Your task to perform on an android device: Add razer huntsman to the cart on ebay.com, then select checkout. Image 0: 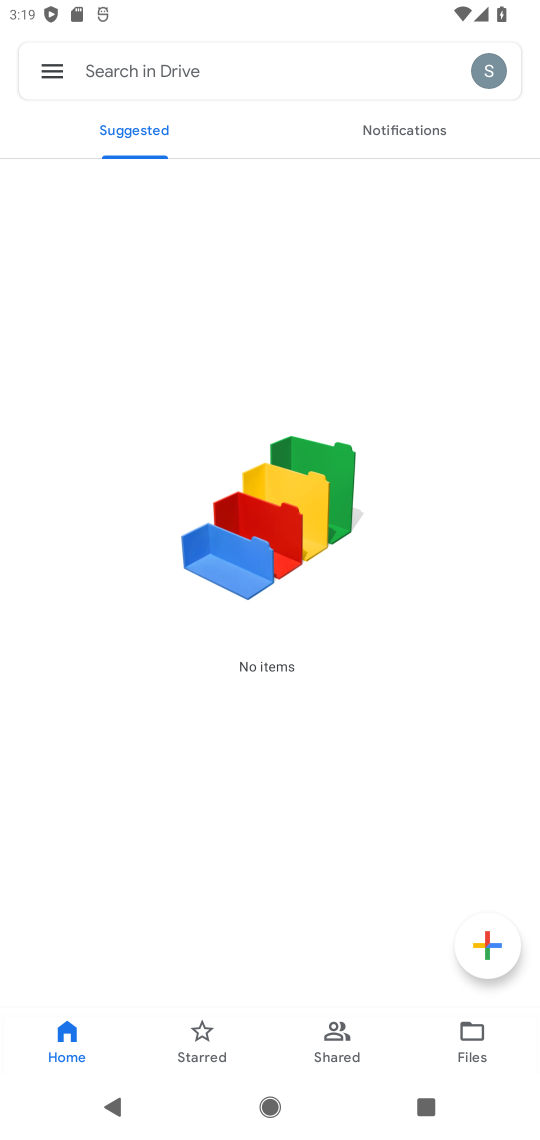
Step 0: press home button
Your task to perform on an android device: Add razer huntsman to the cart on ebay.com, then select checkout. Image 1: 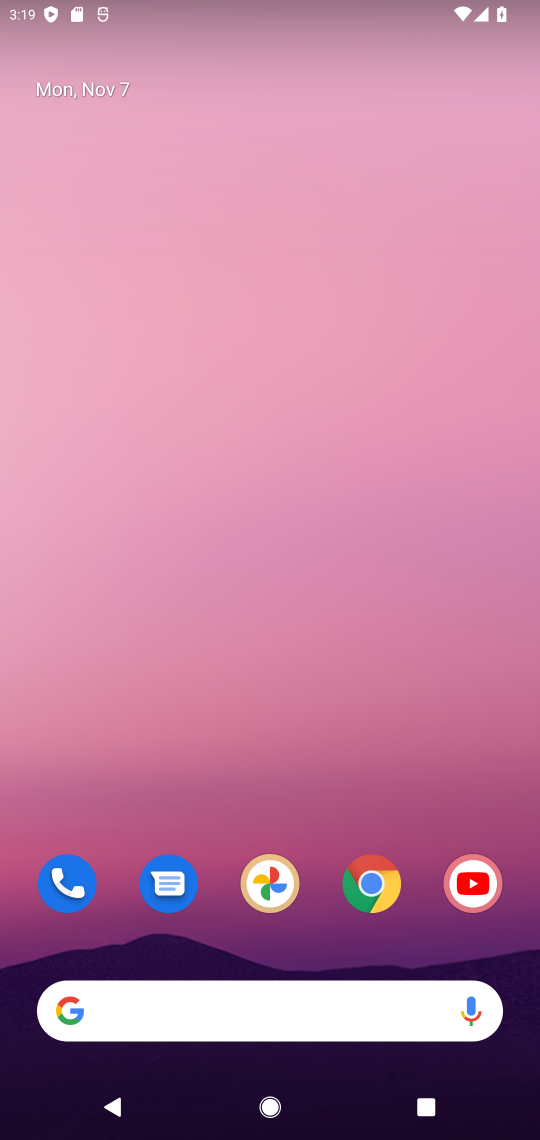
Step 1: click (369, 890)
Your task to perform on an android device: Add razer huntsman to the cart on ebay.com, then select checkout. Image 2: 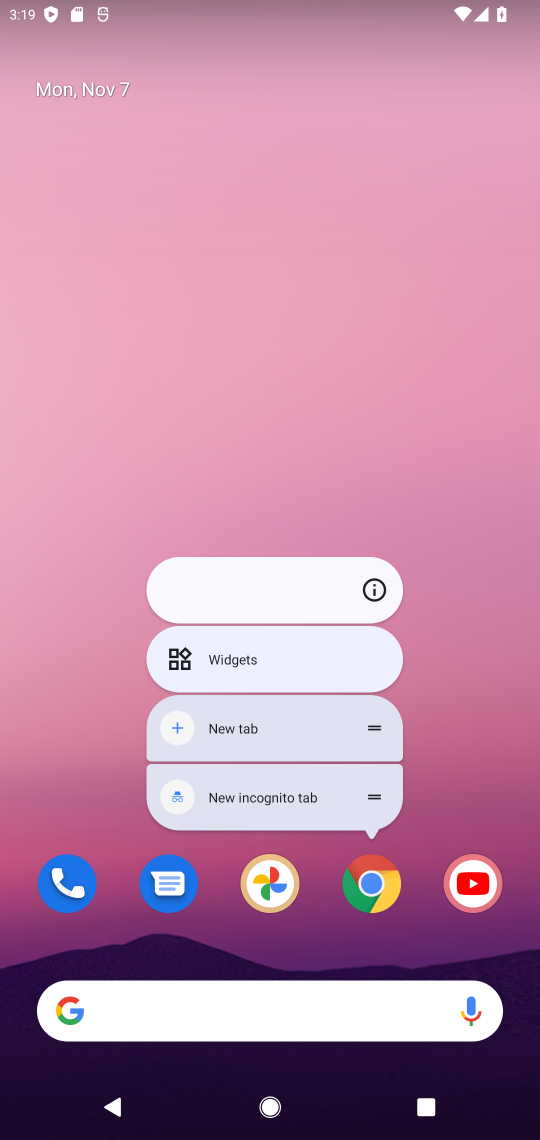
Step 2: click (357, 889)
Your task to perform on an android device: Add razer huntsman to the cart on ebay.com, then select checkout. Image 3: 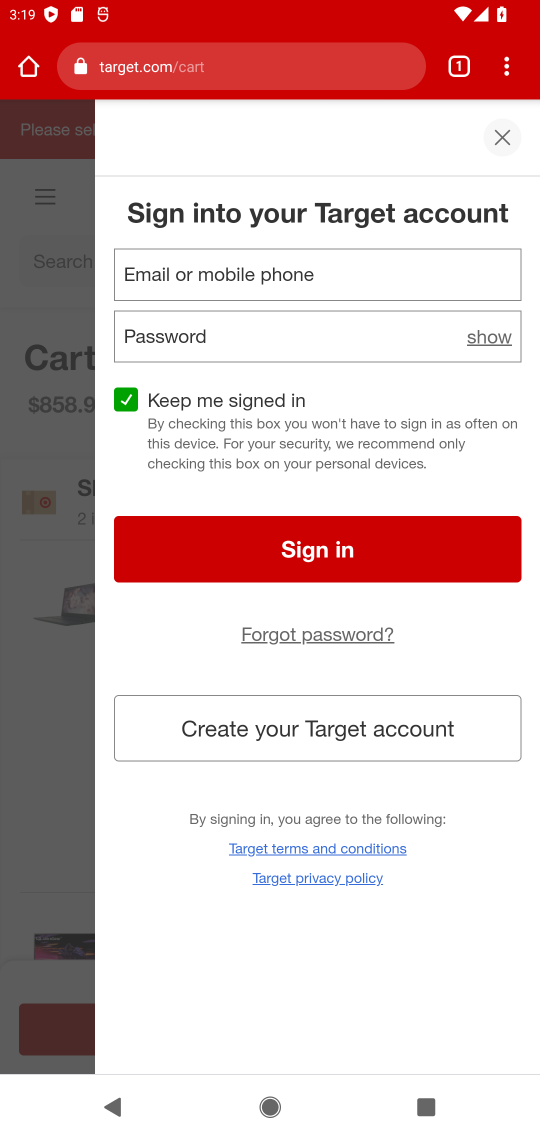
Step 3: click (255, 64)
Your task to perform on an android device: Add razer huntsman to the cart on ebay.com, then select checkout. Image 4: 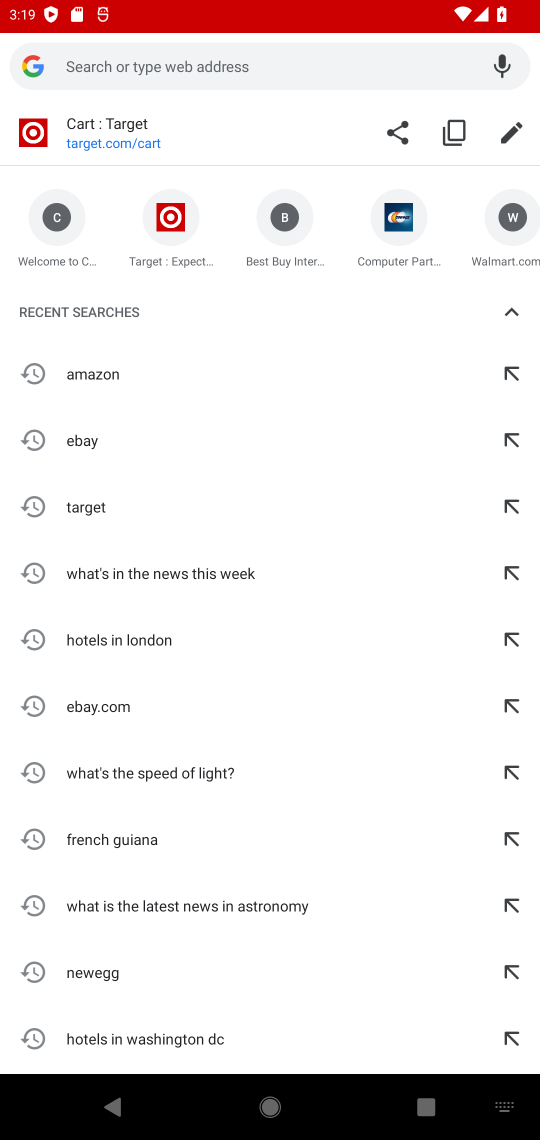
Step 4: type " ebay.com"
Your task to perform on an android device: Add razer huntsman to the cart on ebay.com, then select checkout. Image 5: 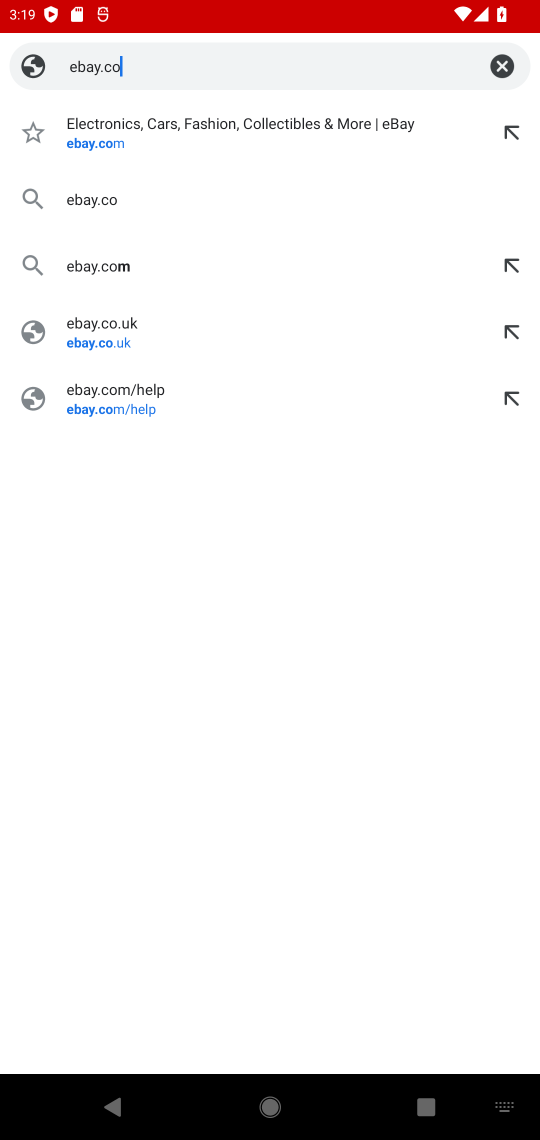
Step 5: press enter
Your task to perform on an android device: Add razer huntsman to the cart on ebay.com, then select checkout. Image 6: 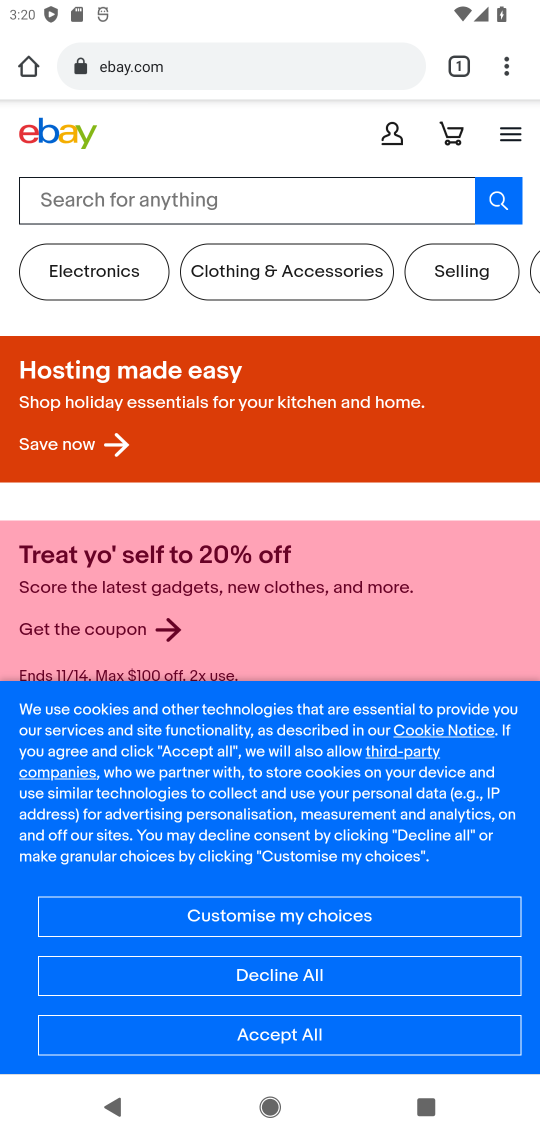
Step 6: click (317, 1034)
Your task to perform on an android device: Add razer huntsman to the cart on ebay.com, then select checkout. Image 7: 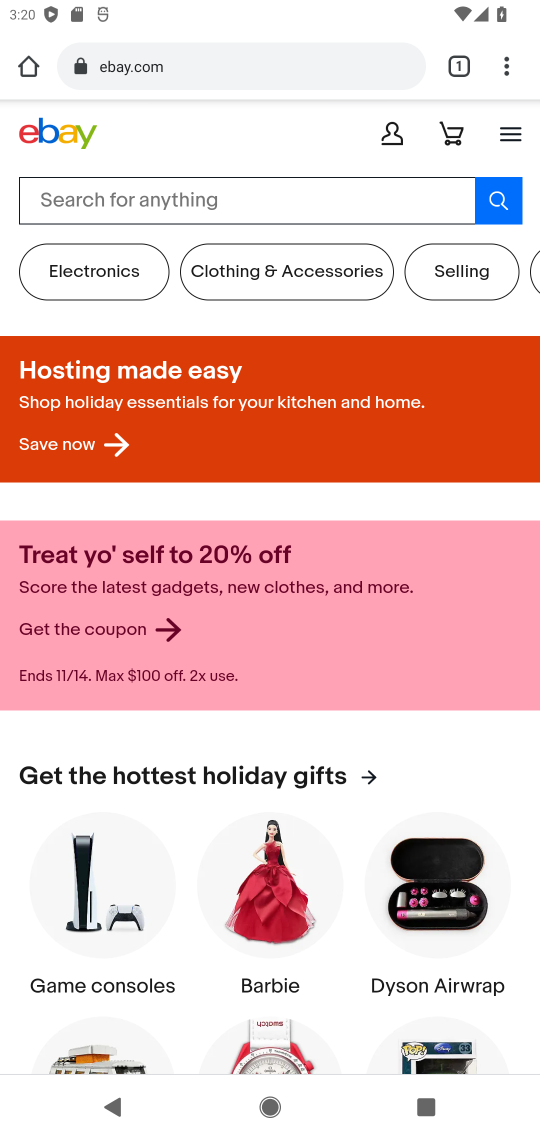
Step 7: click (251, 194)
Your task to perform on an android device: Add razer huntsman to the cart on ebay.com, then select checkout. Image 8: 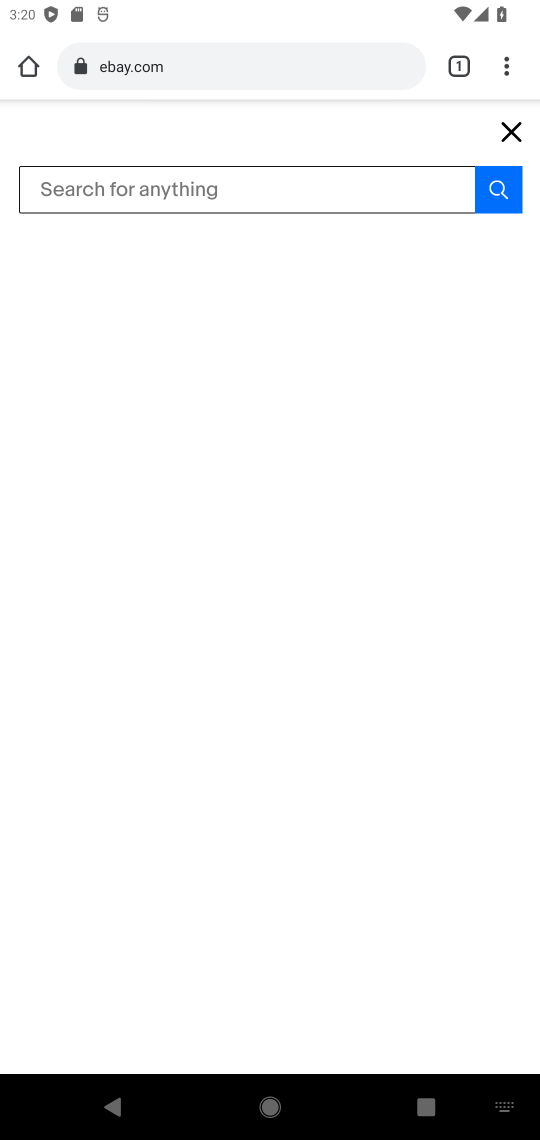
Step 8: type " razer huntsman"
Your task to perform on an android device: Add razer huntsman to the cart on ebay.com, then select checkout. Image 9: 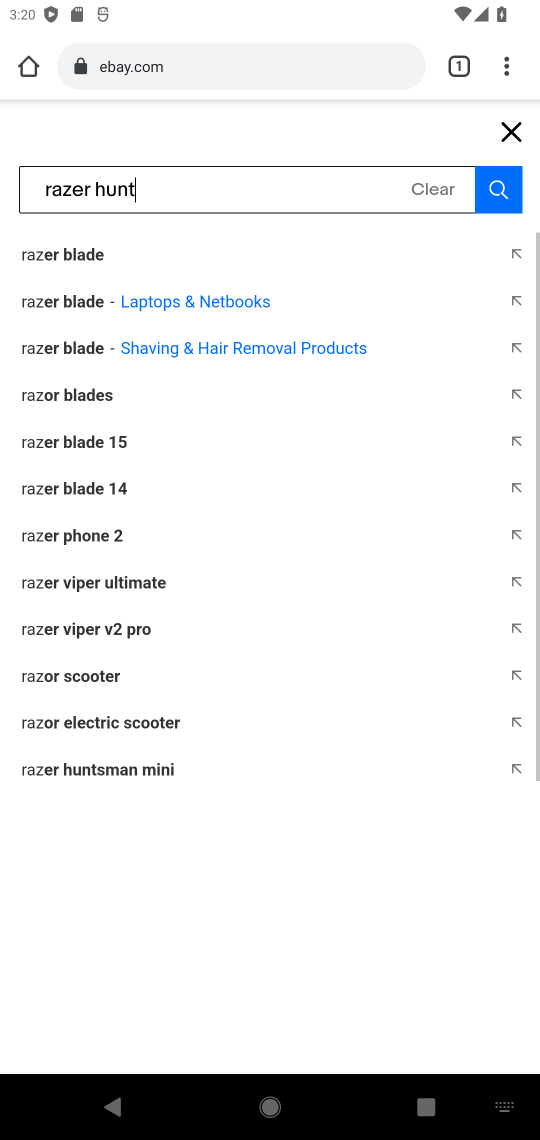
Step 9: press enter
Your task to perform on an android device: Add razer huntsman to the cart on ebay.com, then select checkout. Image 10: 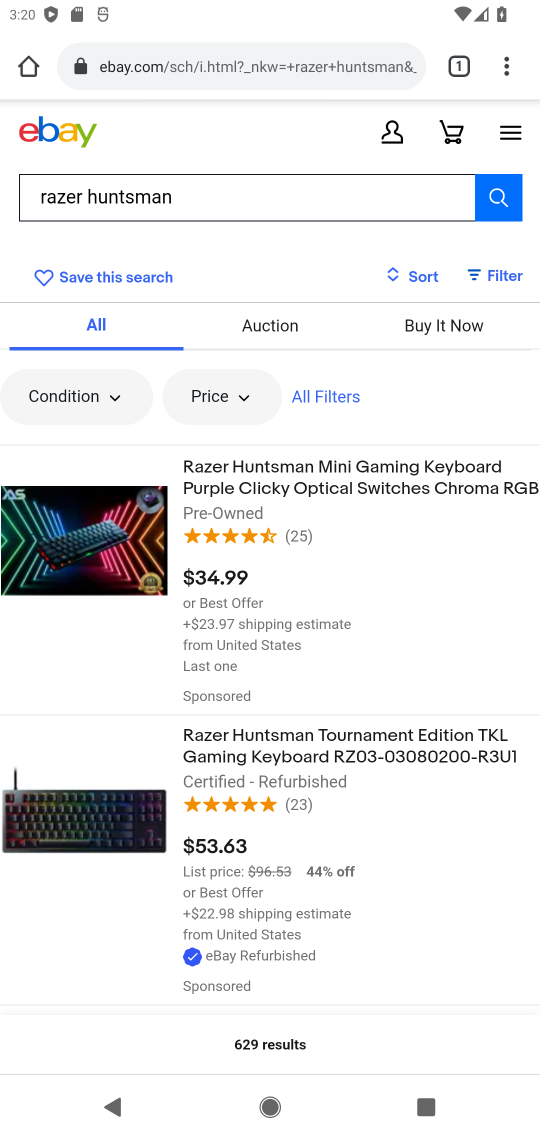
Step 10: drag from (264, 943) to (424, 237)
Your task to perform on an android device: Add razer huntsman to the cart on ebay.com, then select checkout. Image 11: 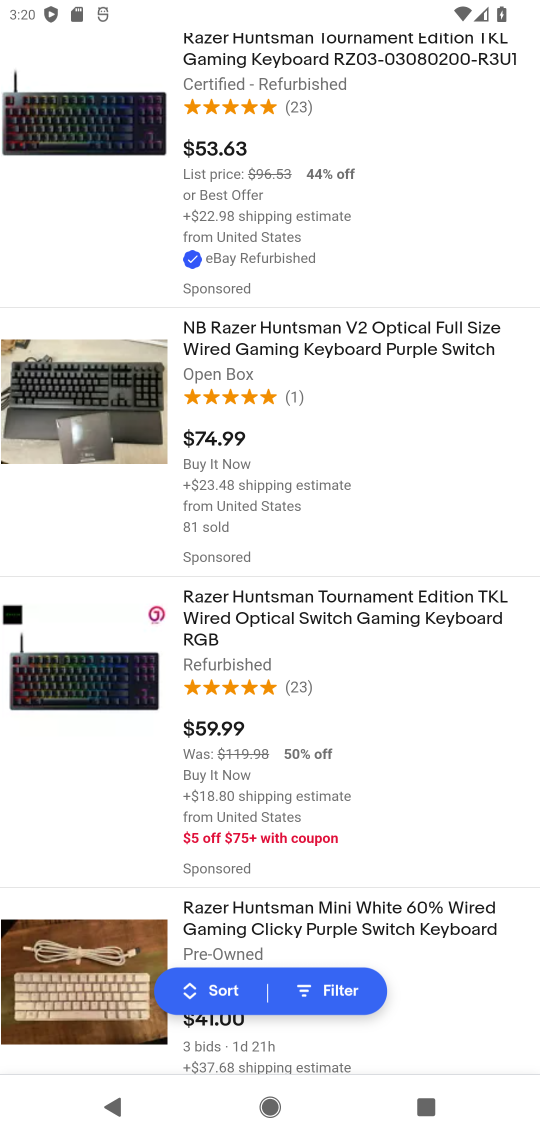
Step 11: drag from (376, 772) to (339, 887)
Your task to perform on an android device: Add razer huntsman to the cart on ebay.com, then select checkout. Image 12: 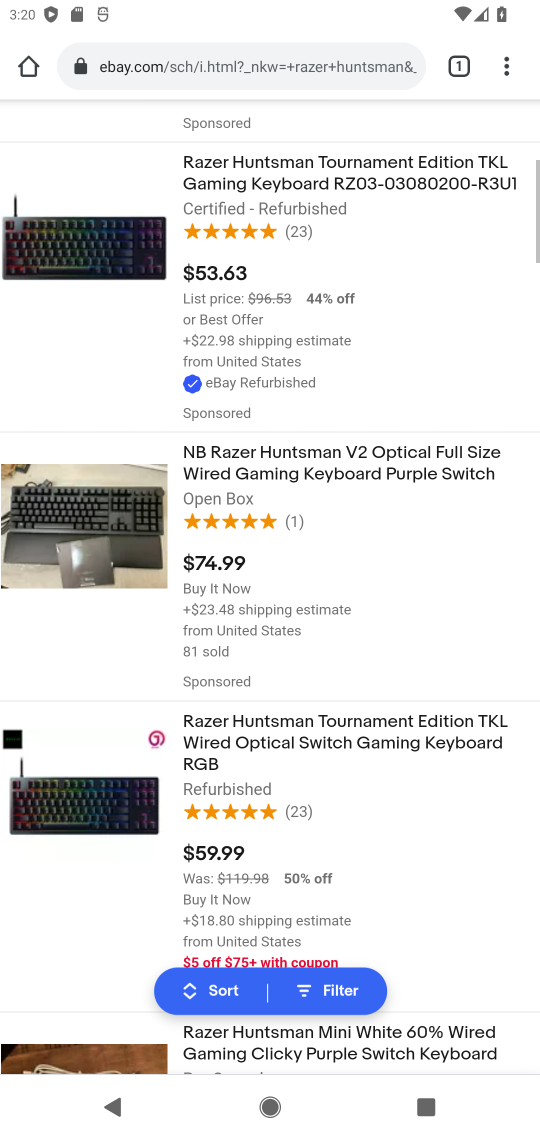
Step 12: drag from (345, 334) to (347, 785)
Your task to perform on an android device: Add razer huntsman to the cart on ebay.com, then select checkout. Image 13: 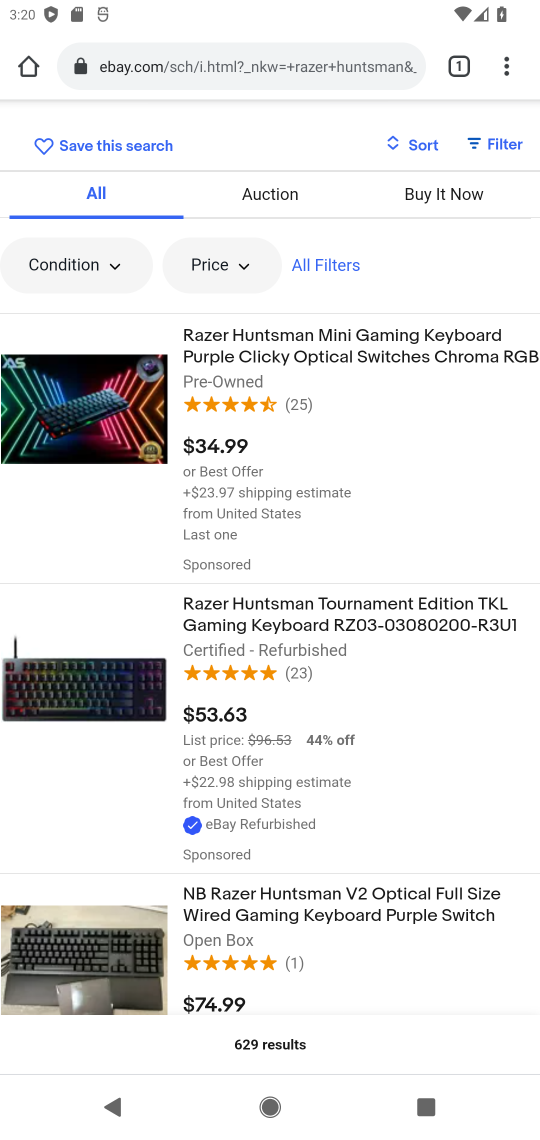
Step 13: drag from (331, 232) to (317, 617)
Your task to perform on an android device: Add razer huntsman to the cart on ebay.com, then select checkout. Image 14: 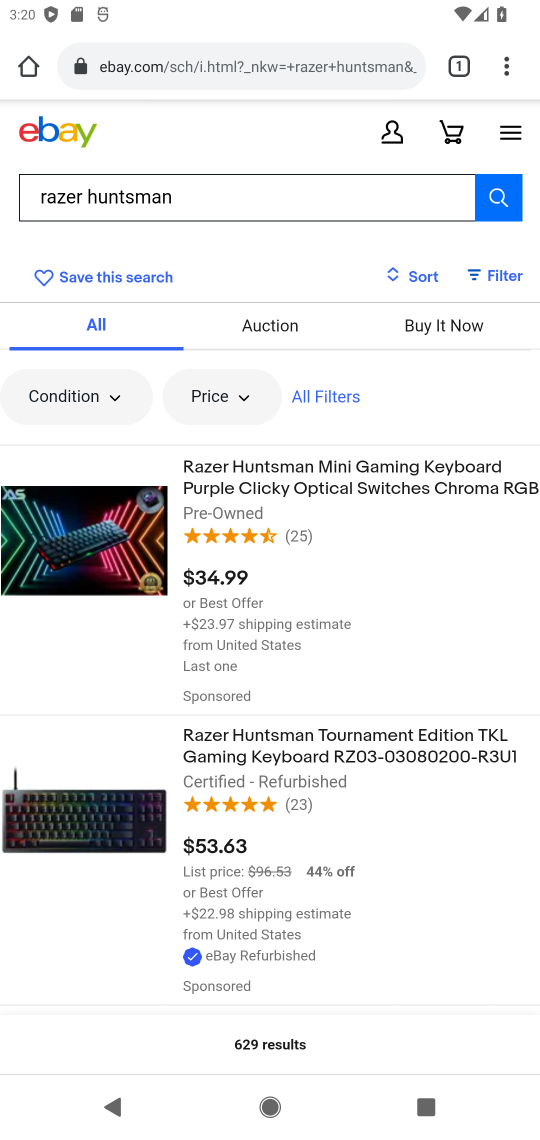
Step 14: click (318, 489)
Your task to perform on an android device: Add razer huntsman to the cart on ebay.com, then select checkout. Image 15: 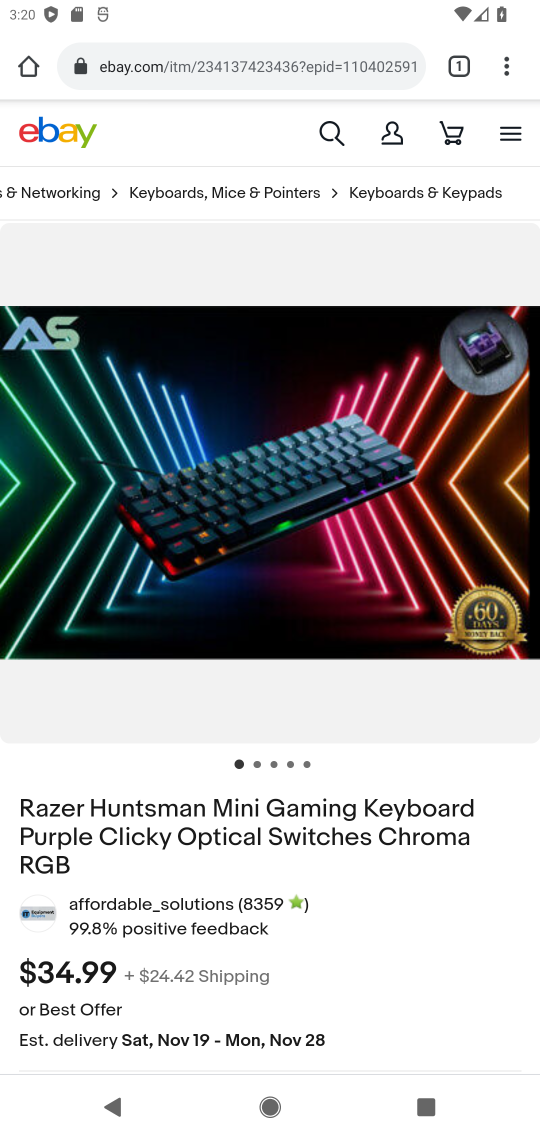
Step 15: drag from (221, 888) to (404, 1)
Your task to perform on an android device: Add razer huntsman to the cart on ebay.com, then select checkout. Image 16: 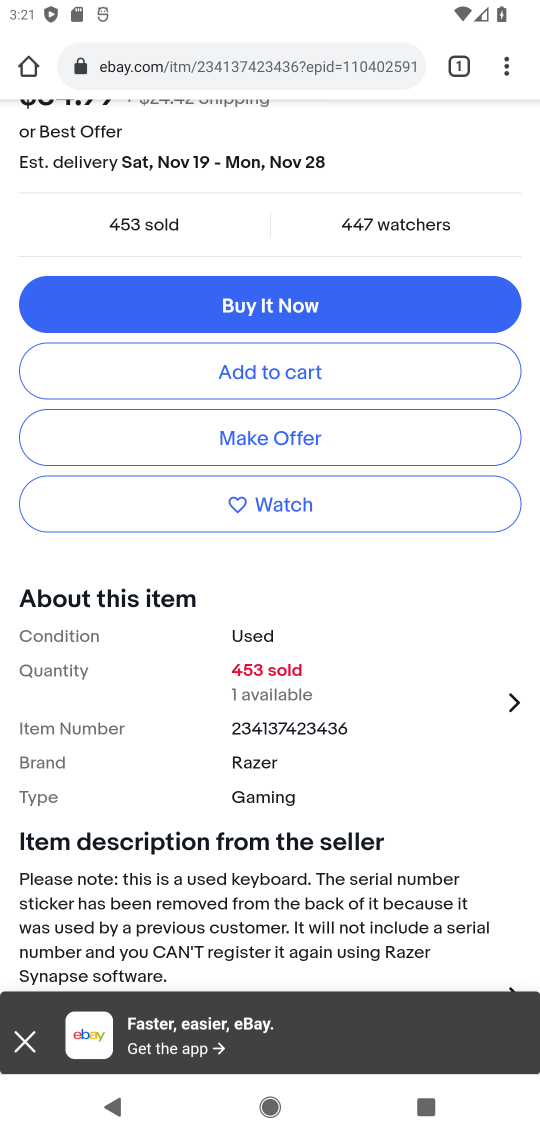
Step 16: click (260, 370)
Your task to perform on an android device: Add razer huntsman to the cart on ebay.com, then select checkout. Image 17: 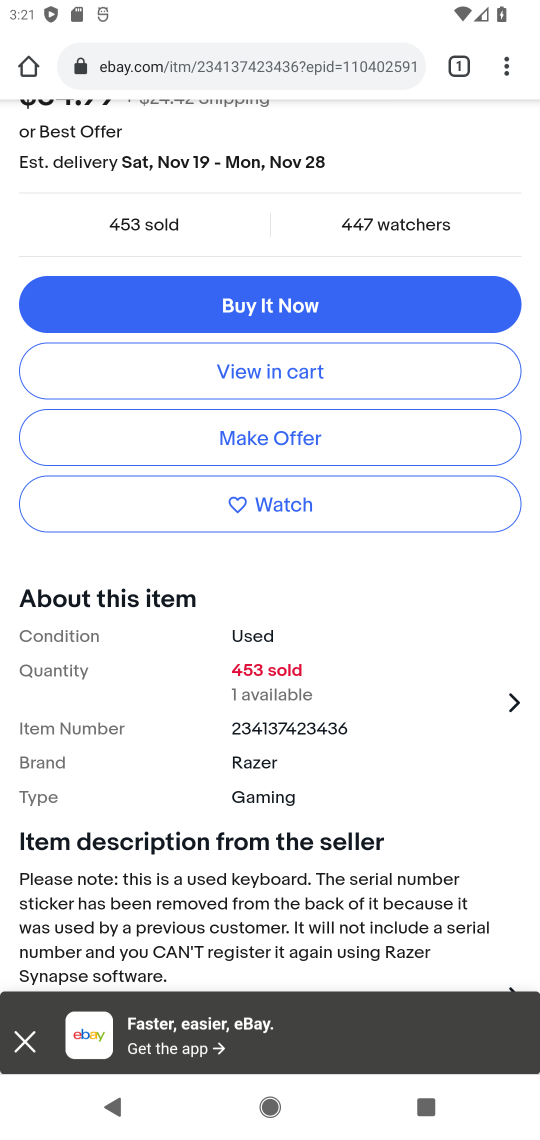
Step 17: click (260, 370)
Your task to perform on an android device: Add razer huntsman to the cart on ebay.com, then select checkout. Image 18: 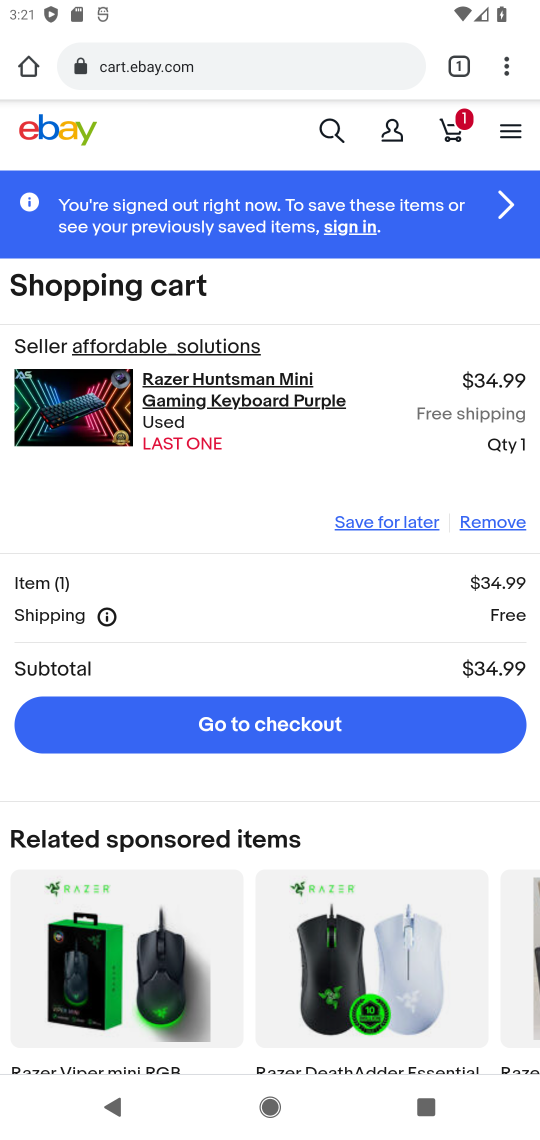
Step 18: click (279, 727)
Your task to perform on an android device: Add razer huntsman to the cart on ebay.com, then select checkout. Image 19: 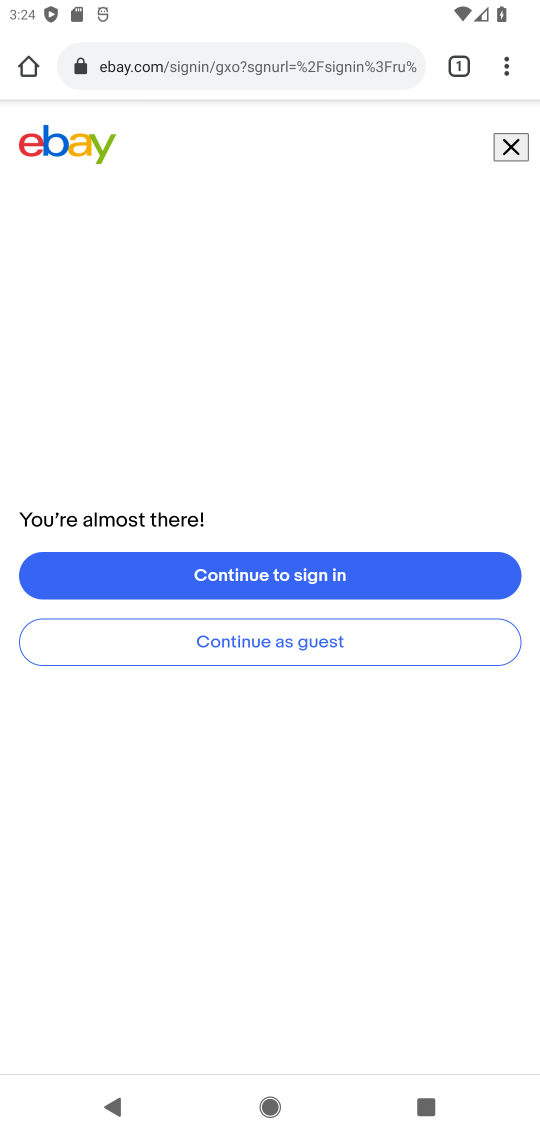
Step 19: task complete